Your task to perform on an android device: turn on notifications settings in the gmail app Image 0: 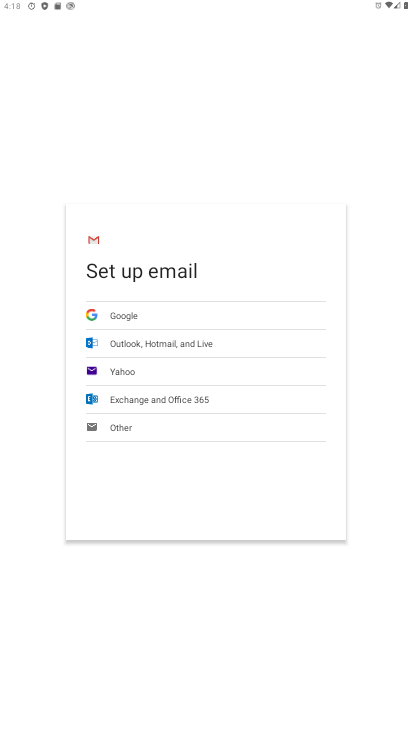
Step 0: press home button
Your task to perform on an android device: turn on notifications settings in the gmail app Image 1: 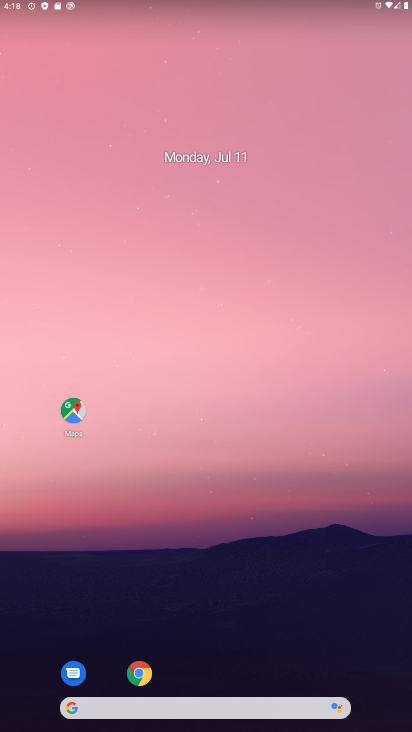
Step 1: drag from (295, 652) to (316, 101)
Your task to perform on an android device: turn on notifications settings in the gmail app Image 2: 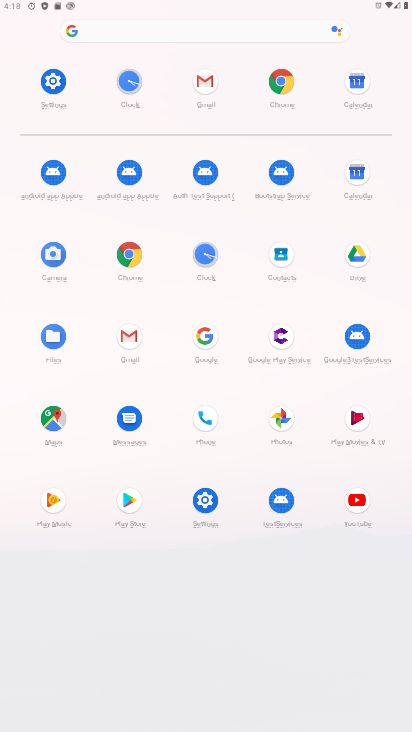
Step 2: click (117, 331)
Your task to perform on an android device: turn on notifications settings in the gmail app Image 3: 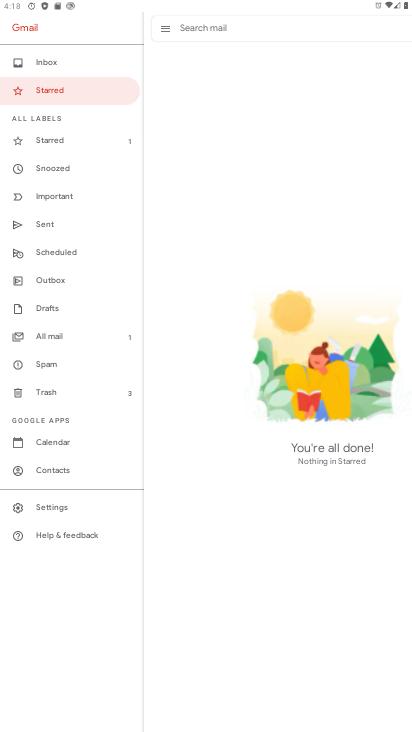
Step 3: press home button
Your task to perform on an android device: turn on notifications settings in the gmail app Image 4: 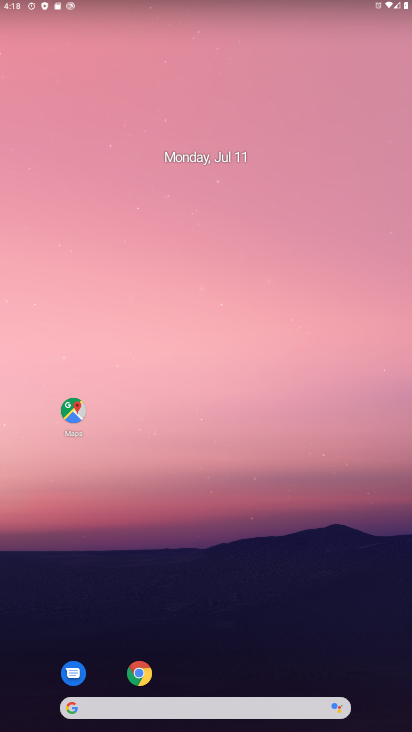
Step 4: drag from (304, 643) to (325, 67)
Your task to perform on an android device: turn on notifications settings in the gmail app Image 5: 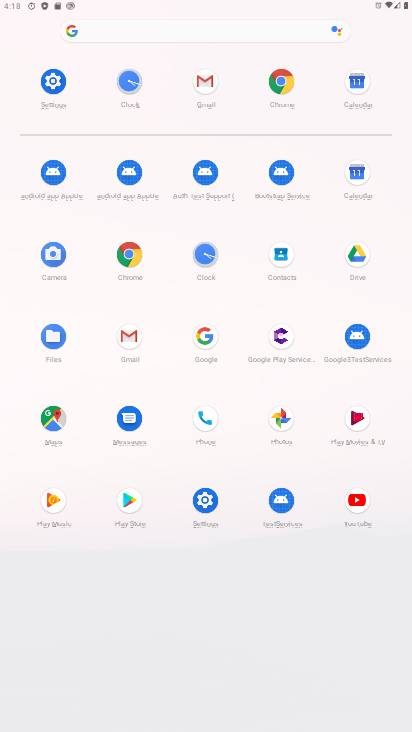
Step 5: click (128, 335)
Your task to perform on an android device: turn on notifications settings in the gmail app Image 6: 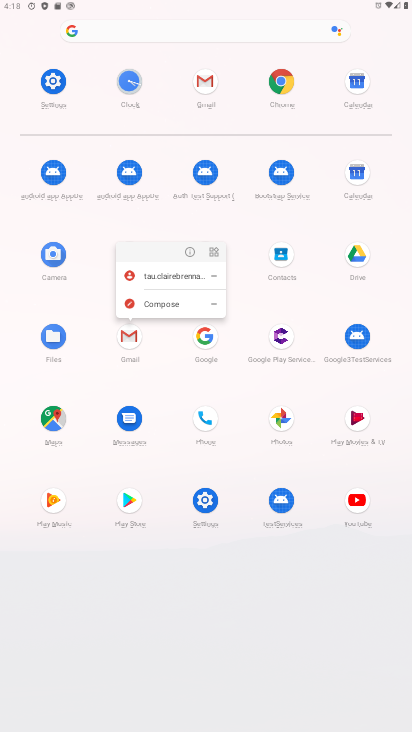
Step 6: click (190, 248)
Your task to perform on an android device: turn on notifications settings in the gmail app Image 7: 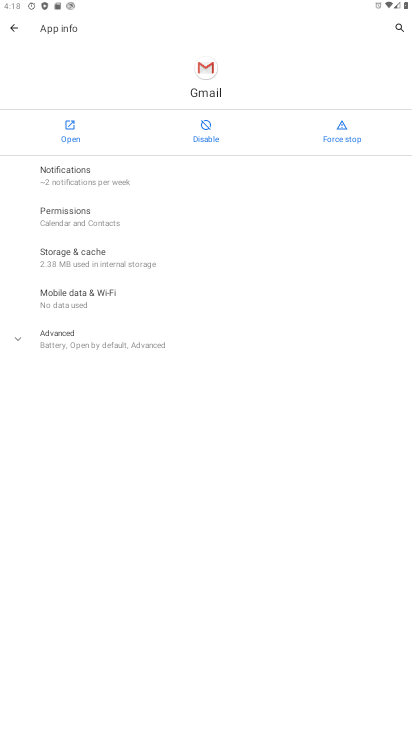
Step 7: click (85, 175)
Your task to perform on an android device: turn on notifications settings in the gmail app Image 8: 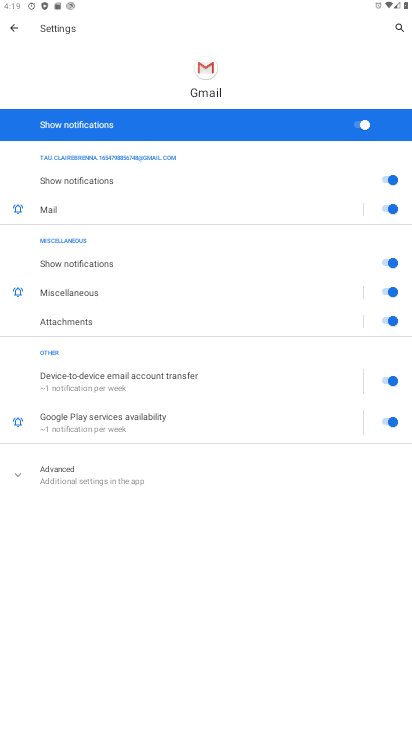
Step 8: task complete